Your task to perform on an android device: check the backup settings in the google photos Image 0: 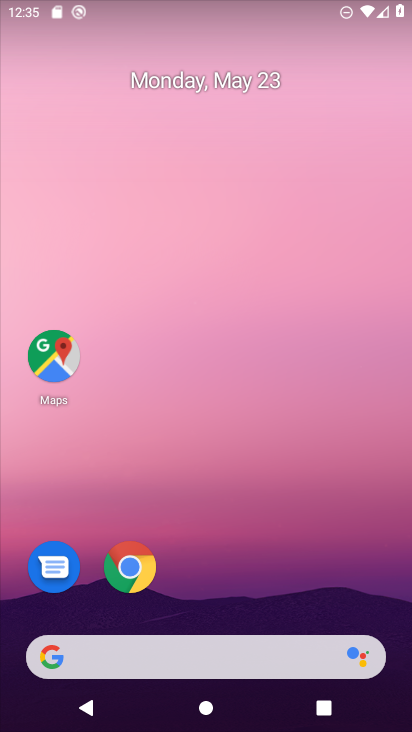
Step 0: drag from (194, 583) to (198, 163)
Your task to perform on an android device: check the backup settings in the google photos Image 1: 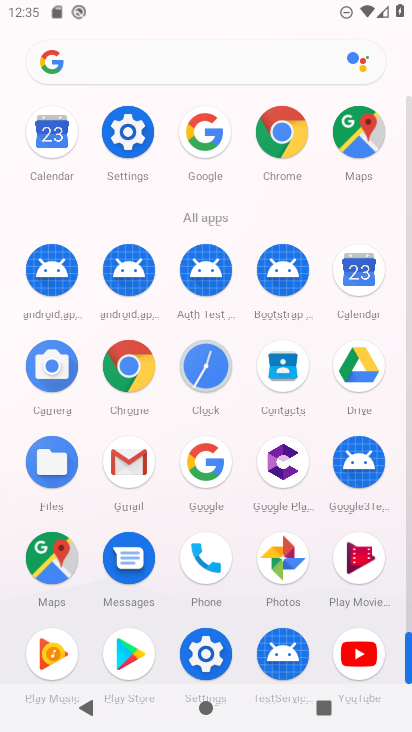
Step 1: click (282, 550)
Your task to perform on an android device: check the backup settings in the google photos Image 2: 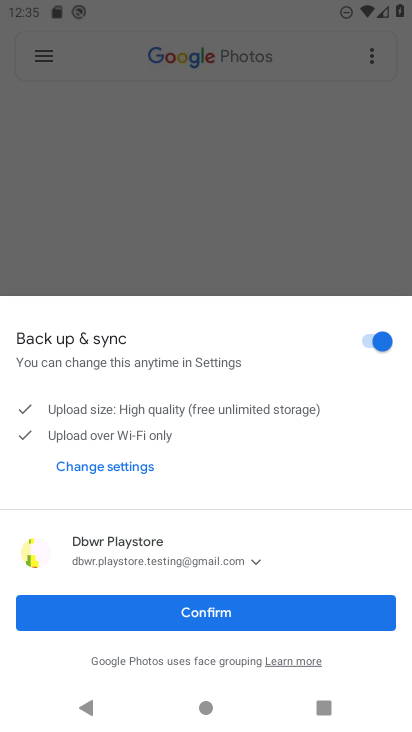
Step 2: click (47, 68)
Your task to perform on an android device: check the backup settings in the google photos Image 3: 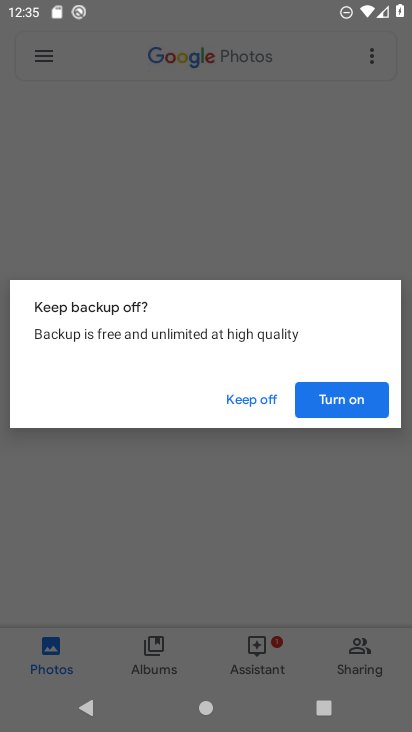
Step 3: click (270, 395)
Your task to perform on an android device: check the backup settings in the google photos Image 4: 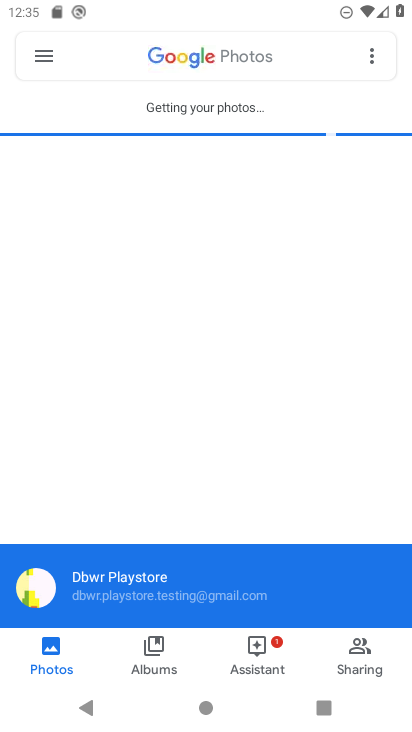
Step 4: click (46, 61)
Your task to perform on an android device: check the backup settings in the google photos Image 5: 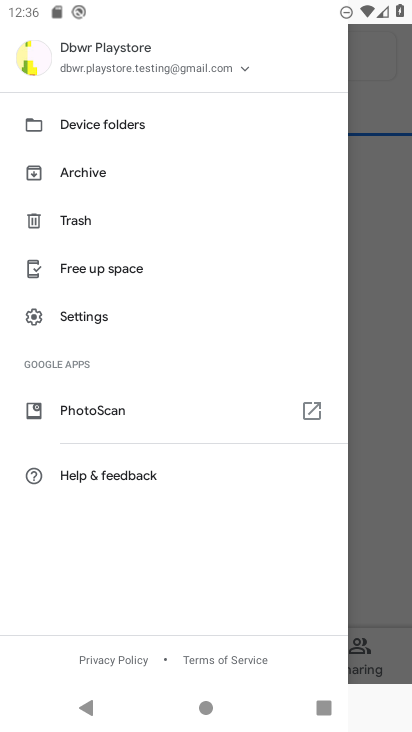
Step 5: click (83, 315)
Your task to perform on an android device: check the backup settings in the google photos Image 6: 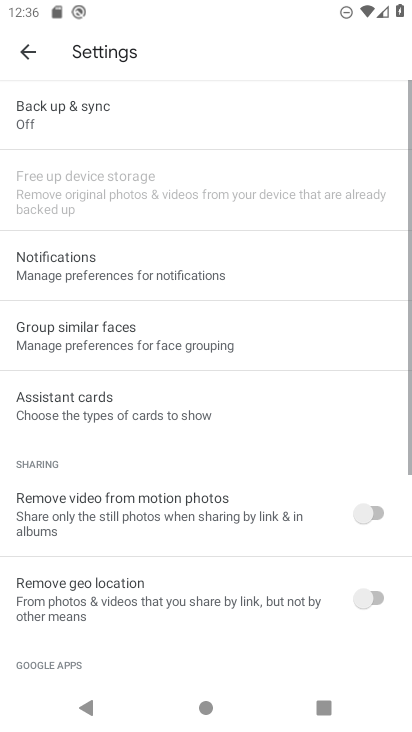
Step 6: click (104, 124)
Your task to perform on an android device: check the backup settings in the google photos Image 7: 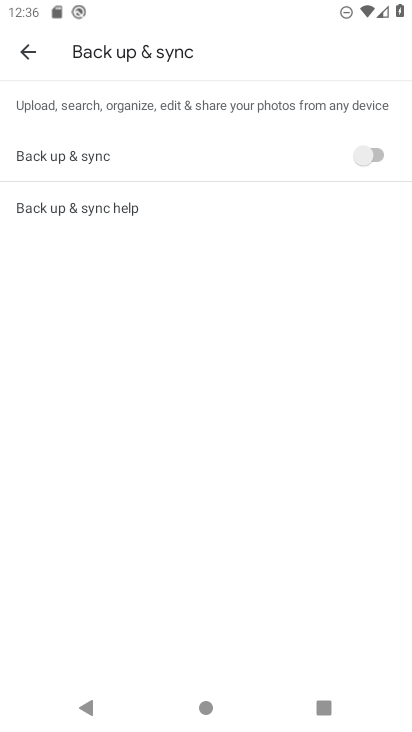
Step 7: drag from (161, 506) to (174, 339)
Your task to perform on an android device: check the backup settings in the google photos Image 8: 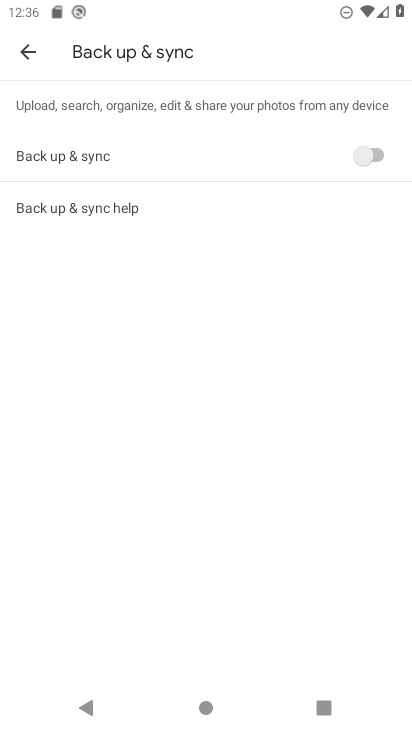
Step 8: click (78, 162)
Your task to perform on an android device: check the backup settings in the google photos Image 9: 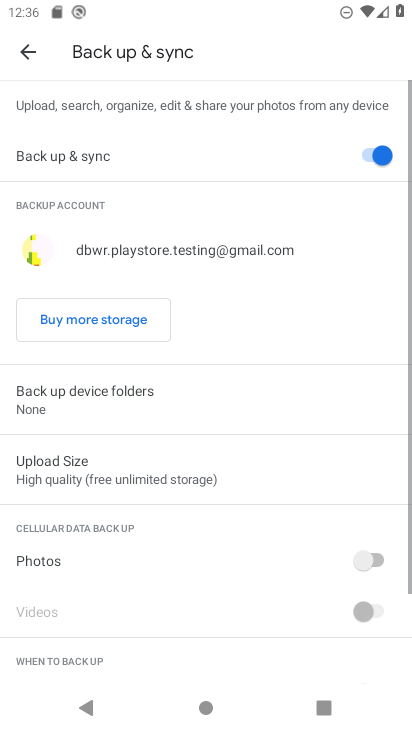
Step 9: task complete